Your task to perform on an android device: find snoozed emails in the gmail app Image 0: 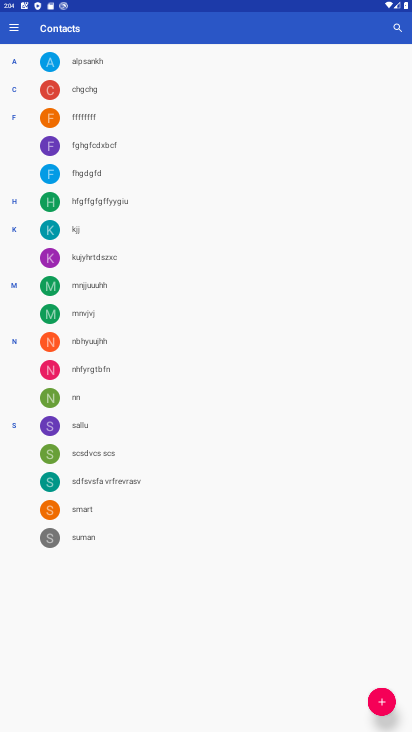
Step 0: press home button
Your task to perform on an android device: find snoozed emails in the gmail app Image 1: 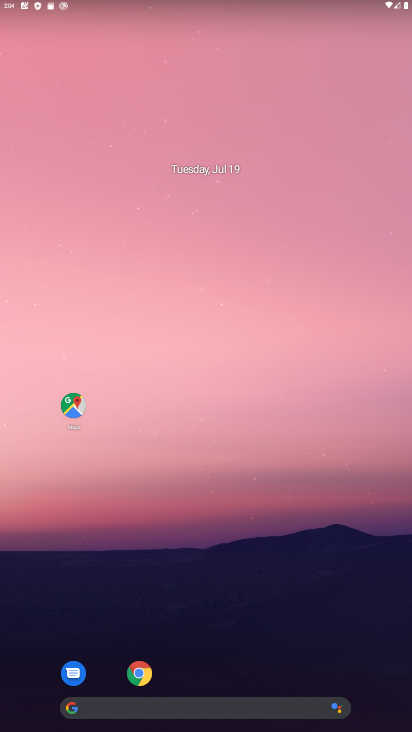
Step 1: drag from (205, 708) to (258, 237)
Your task to perform on an android device: find snoozed emails in the gmail app Image 2: 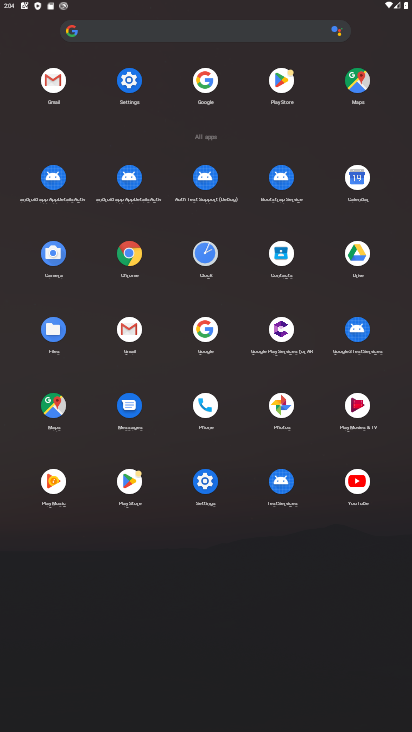
Step 2: click (128, 326)
Your task to perform on an android device: find snoozed emails in the gmail app Image 3: 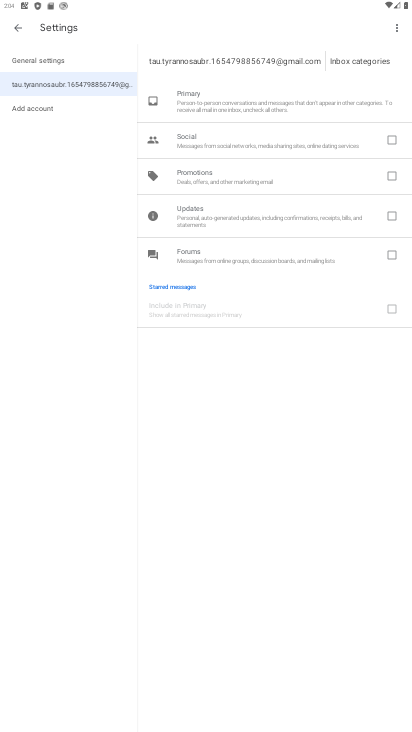
Step 3: press back button
Your task to perform on an android device: find snoozed emails in the gmail app Image 4: 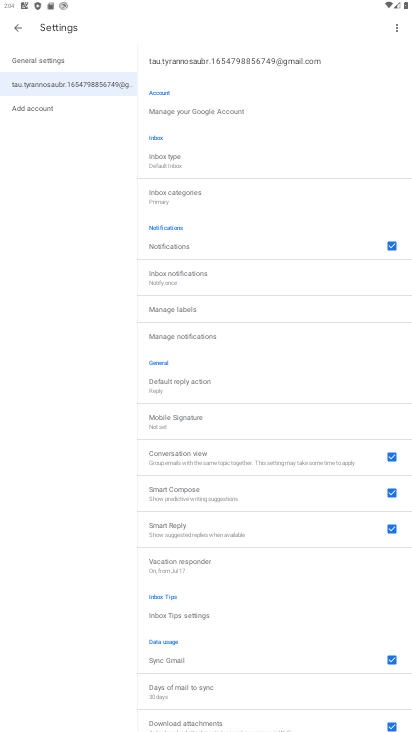
Step 4: press back button
Your task to perform on an android device: find snoozed emails in the gmail app Image 5: 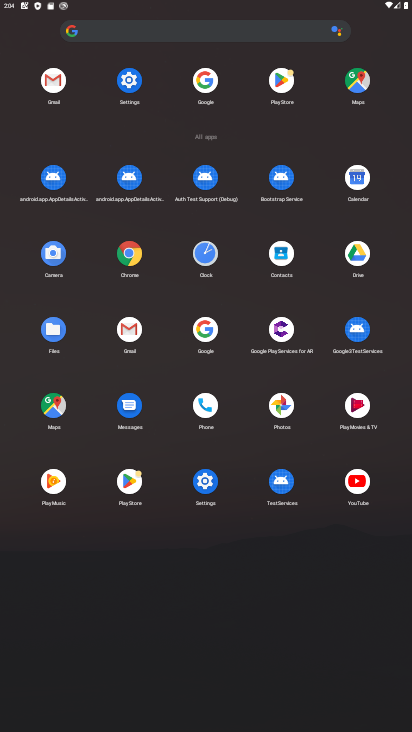
Step 5: click (133, 332)
Your task to perform on an android device: find snoozed emails in the gmail app Image 6: 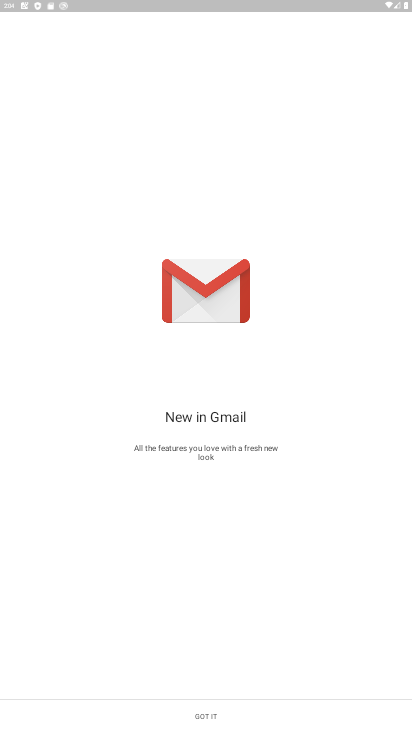
Step 6: click (205, 713)
Your task to perform on an android device: find snoozed emails in the gmail app Image 7: 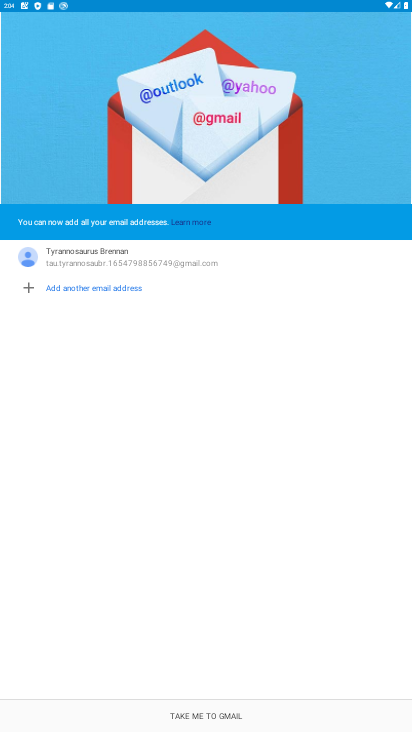
Step 7: click (220, 718)
Your task to perform on an android device: find snoozed emails in the gmail app Image 8: 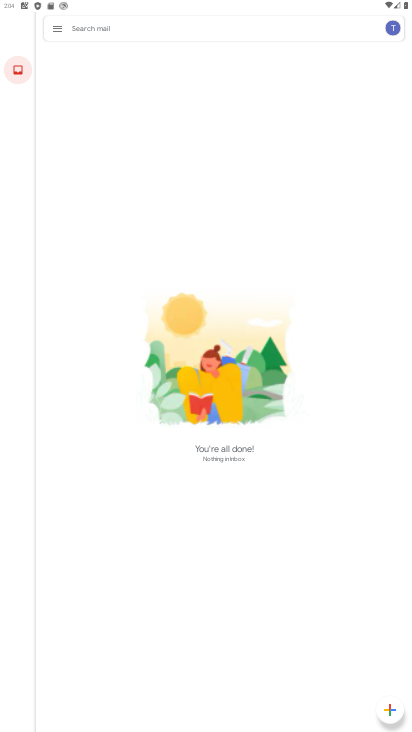
Step 8: click (56, 29)
Your task to perform on an android device: find snoozed emails in the gmail app Image 9: 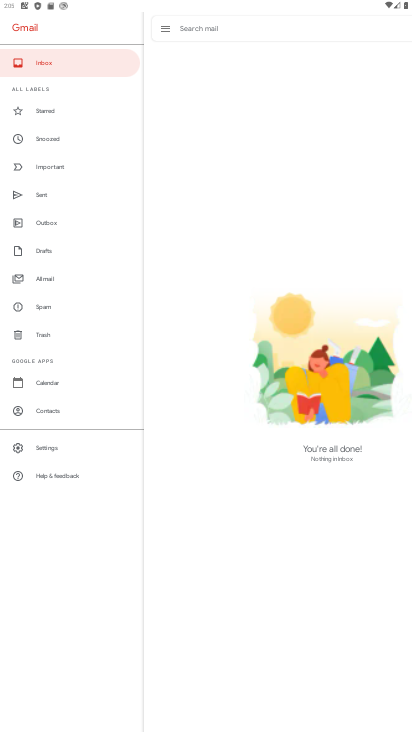
Step 9: click (47, 140)
Your task to perform on an android device: find snoozed emails in the gmail app Image 10: 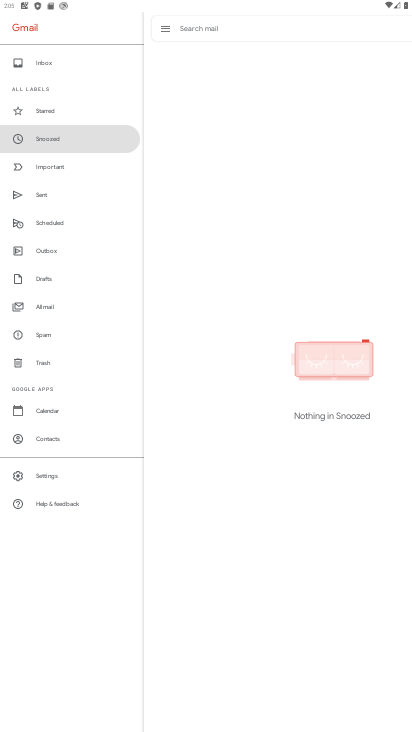
Step 10: click (76, 218)
Your task to perform on an android device: find snoozed emails in the gmail app Image 11: 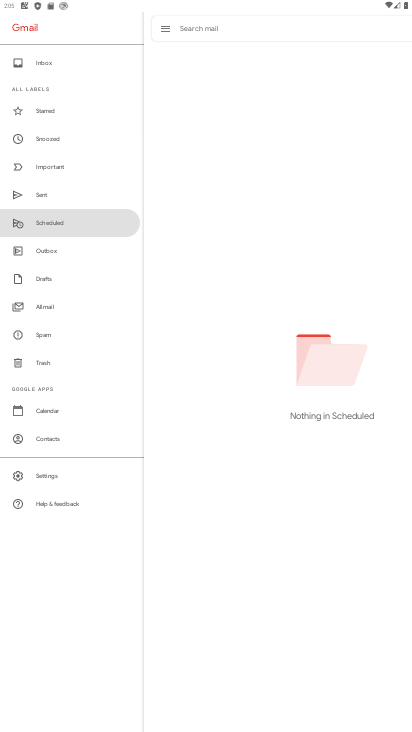
Step 11: click (40, 252)
Your task to perform on an android device: find snoozed emails in the gmail app Image 12: 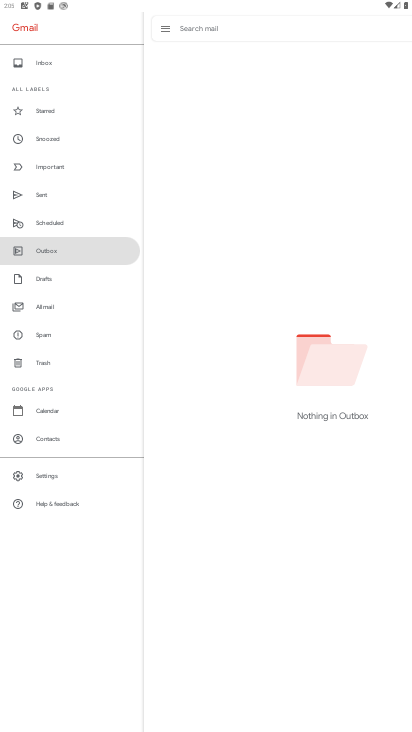
Step 12: click (41, 285)
Your task to perform on an android device: find snoozed emails in the gmail app Image 13: 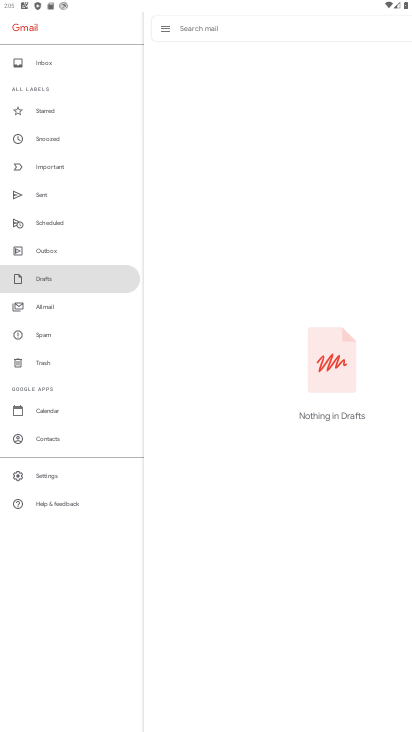
Step 13: click (49, 311)
Your task to perform on an android device: find snoozed emails in the gmail app Image 14: 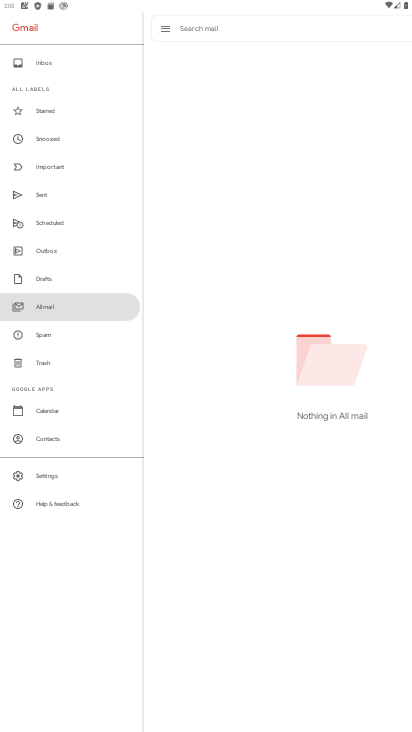
Step 14: task complete